Your task to perform on an android device: Go to calendar. Show me events next week Image 0: 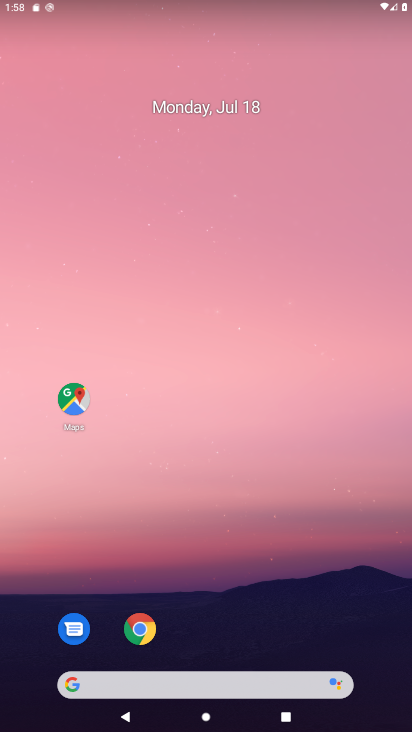
Step 0: click (189, 637)
Your task to perform on an android device: Go to calendar. Show me events next week Image 1: 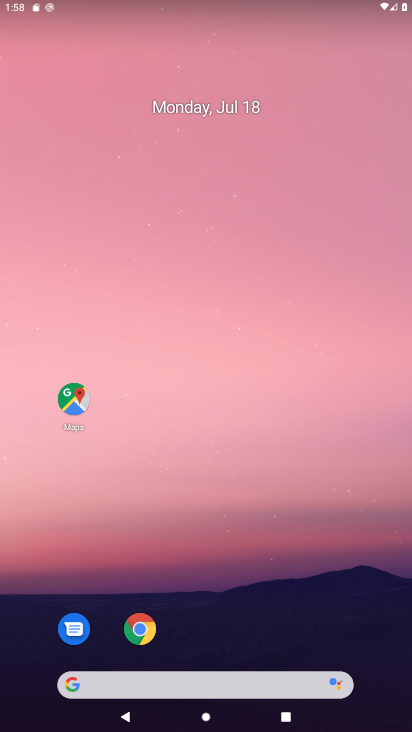
Step 1: drag from (198, 536) to (176, 18)
Your task to perform on an android device: Go to calendar. Show me events next week Image 2: 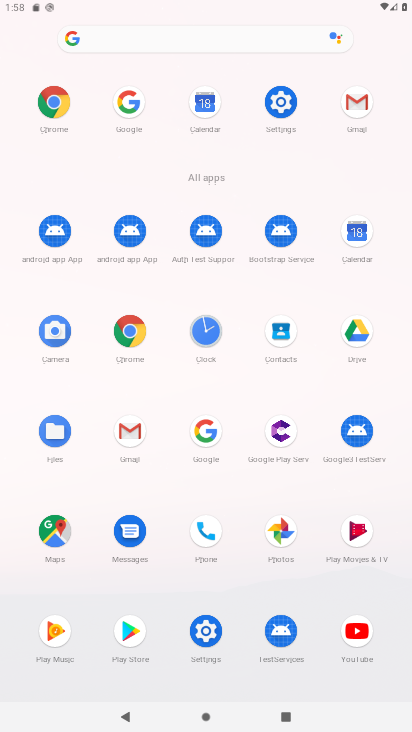
Step 2: click (350, 248)
Your task to perform on an android device: Go to calendar. Show me events next week Image 3: 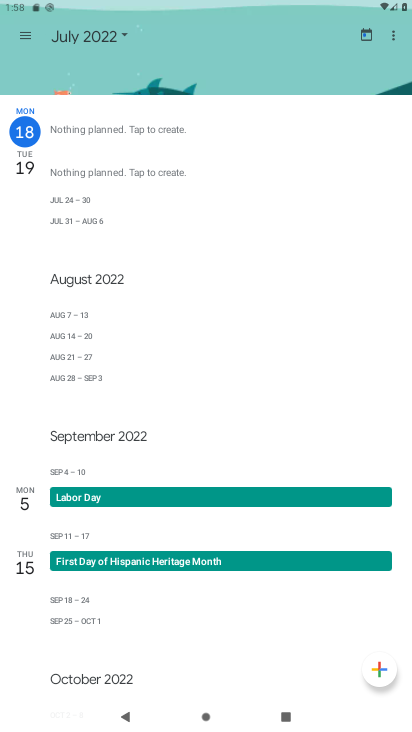
Step 3: click (68, 34)
Your task to perform on an android device: Go to calendar. Show me events next week Image 4: 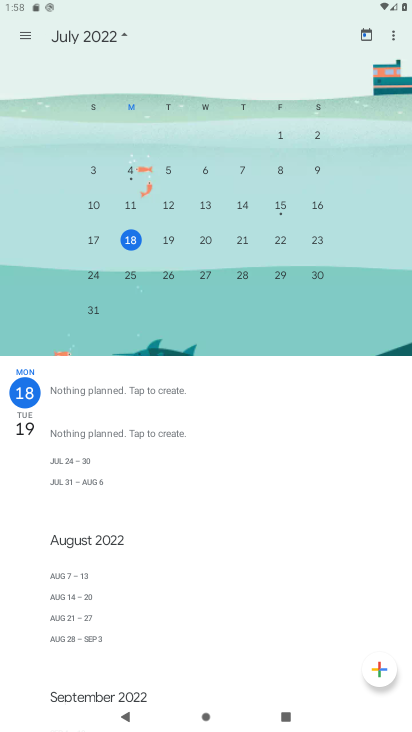
Step 4: click (27, 34)
Your task to perform on an android device: Go to calendar. Show me events next week Image 5: 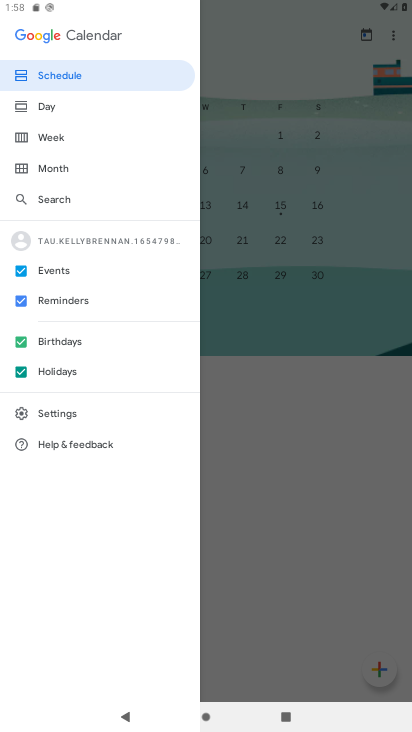
Step 5: click (50, 142)
Your task to perform on an android device: Go to calendar. Show me events next week Image 6: 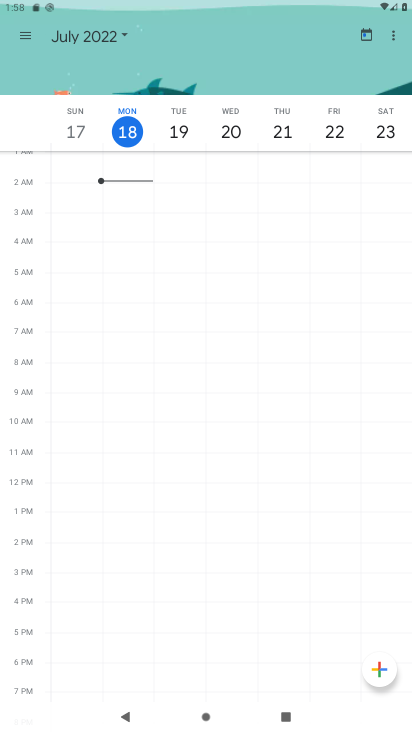
Step 6: click (99, 40)
Your task to perform on an android device: Go to calendar. Show me events next week Image 7: 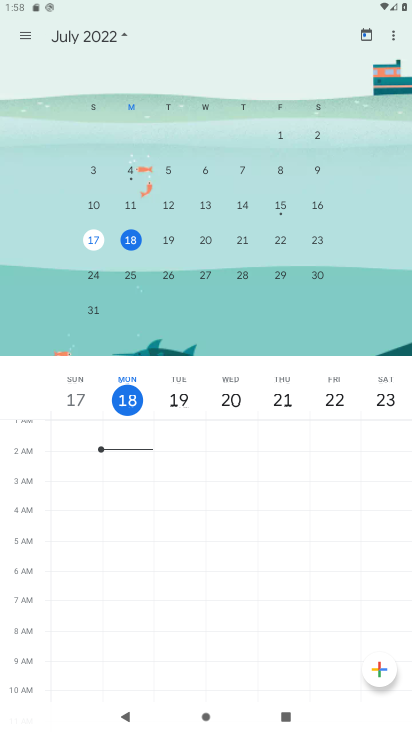
Step 7: click (90, 277)
Your task to perform on an android device: Go to calendar. Show me events next week Image 8: 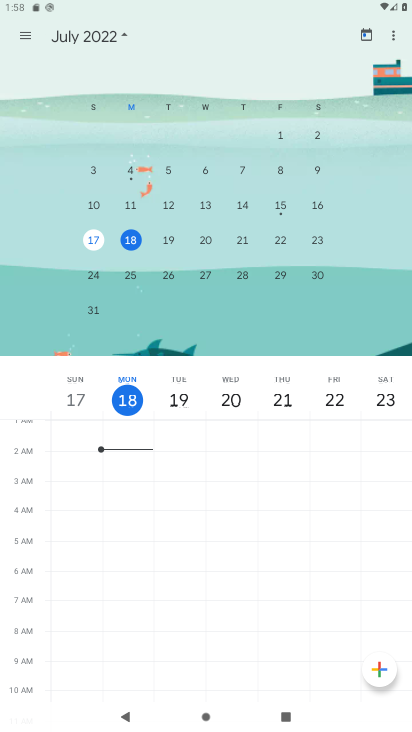
Step 8: click (90, 277)
Your task to perform on an android device: Go to calendar. Show me events next week Image 9: 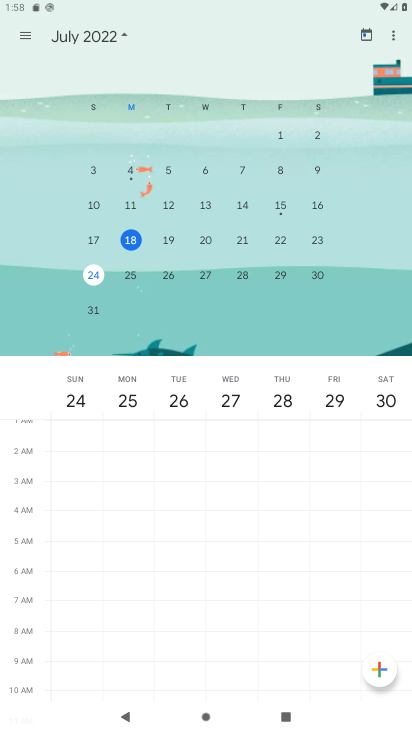
Step 9: task complete